Your task to perform on an android device: What's the weather? Image 0: 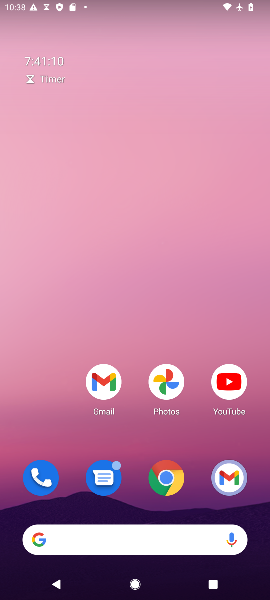
Step 0: drag from (72, 455) to (106, 94)
Your task to perform on an android device: What's the weather? Image 1: 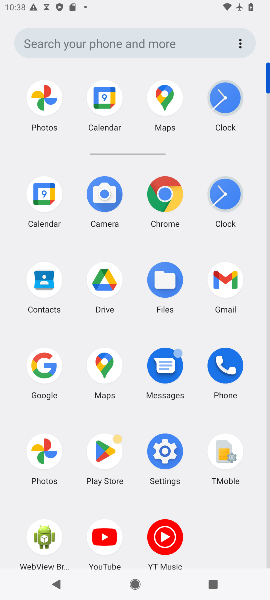
Step 1: click (164, 209)
Your task to perform on an android device: What's the weather? Image 2: 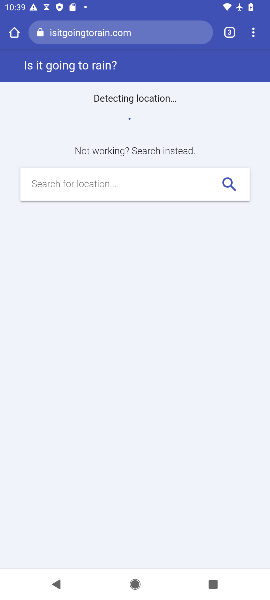
Step 2: click (110, 31)
Your task to perform on an android device: What's the weather? Image 3: 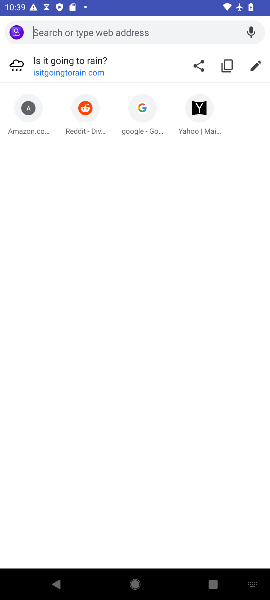
Step 3: type "What's the weather?"
Your task to perform on an android device: What's the weather? Image 4: 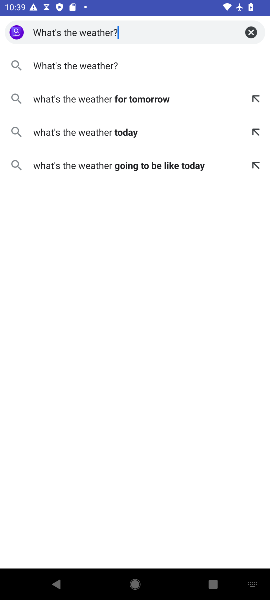
Step 4: click (60, 66)
Your task to perform on an android device: What's the weather? Image 5: 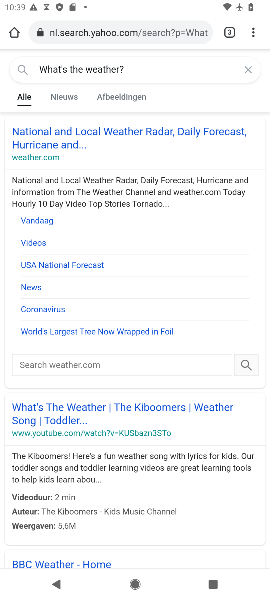
Step 5: click (169, 140)
Your task to perform on an android device: What's the weather? Image 6: 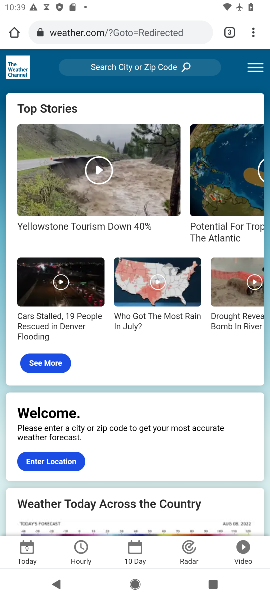
Step 6: task complete